Your task to perform on an android device: Open Google Maps Image 0: 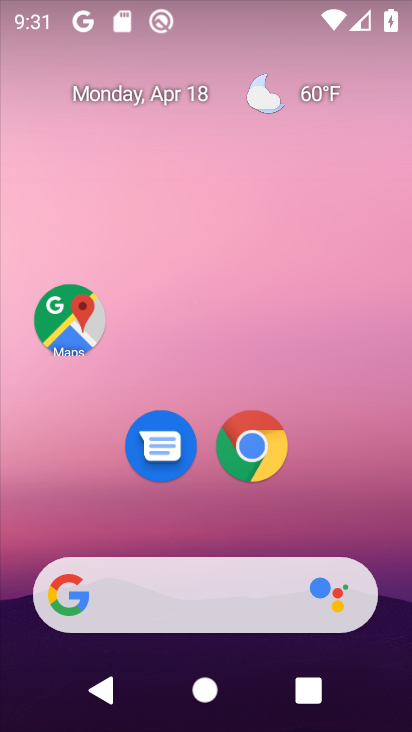
Step 0: drag from (369, 517) to (367, 109)
Your task to perform on an android device: Open Google Maps Image 1: 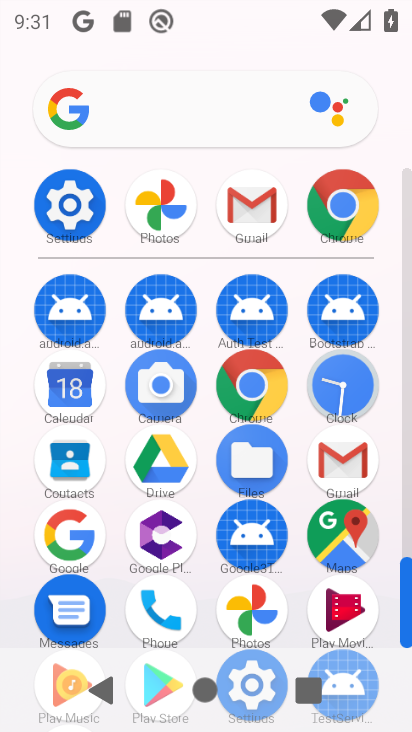
Step 1: drag from (197, 573) to (201, 358)
Your task to perform on an android device: Open Google Maps Image 2: 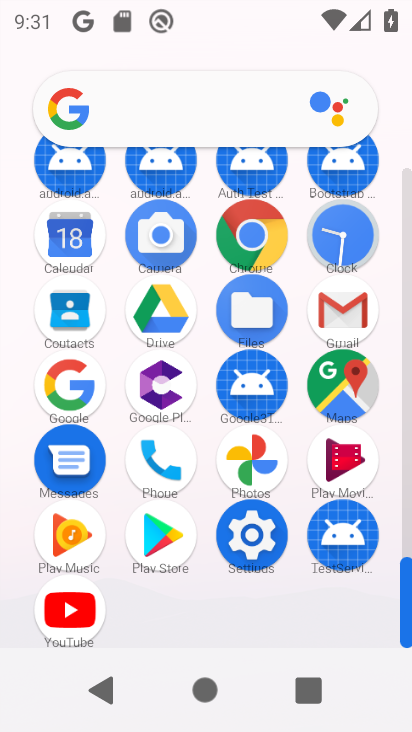
Step 2: click (346, 388)
Your task to perform on an android device: Open Google Maps Image 3: 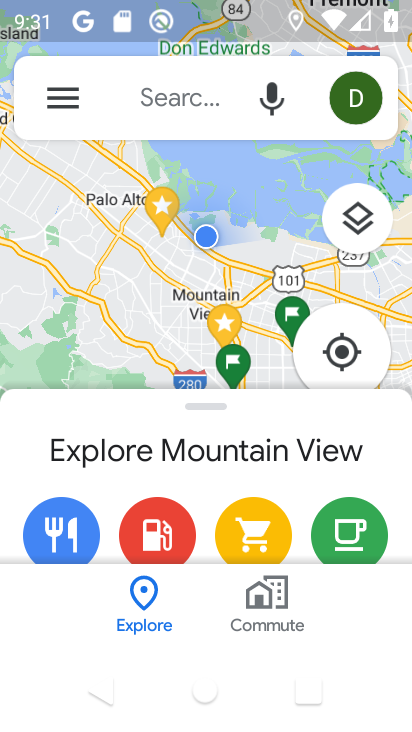
Step 3: task complete